Your task to perform on an android device: Show the shopping cart on newegg.com. Search for "asus rog" on newegg.com, select the first entry, and add it to the cart. Image 0: 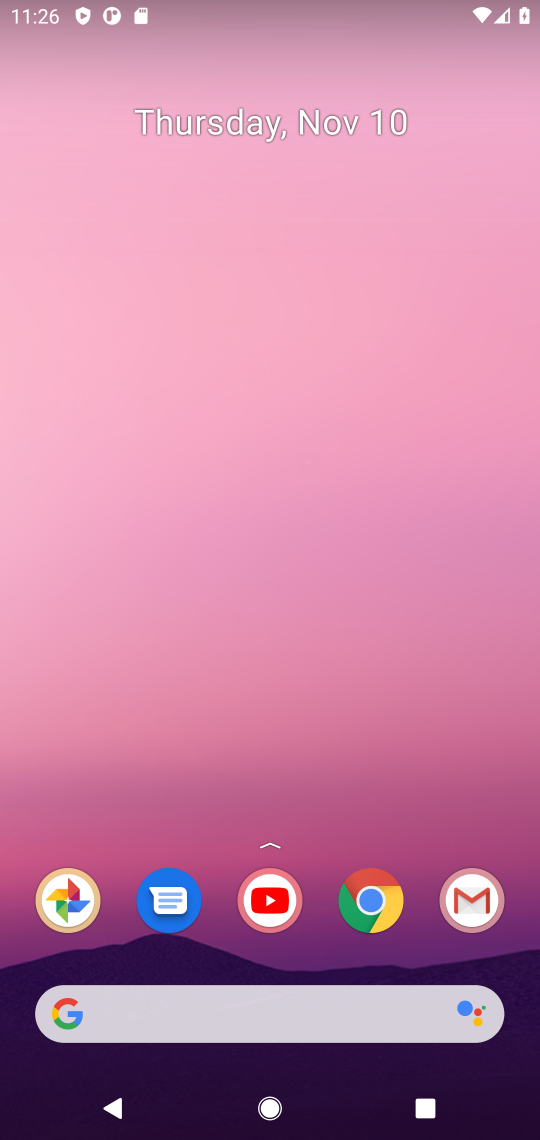
Step 0: click (365, 901)
Your task to perform on an android device: Show the shopping cart on newegg.com. Search for "asus rog" on newegg.com, select the first entry, and add it to the cart. Image 1: 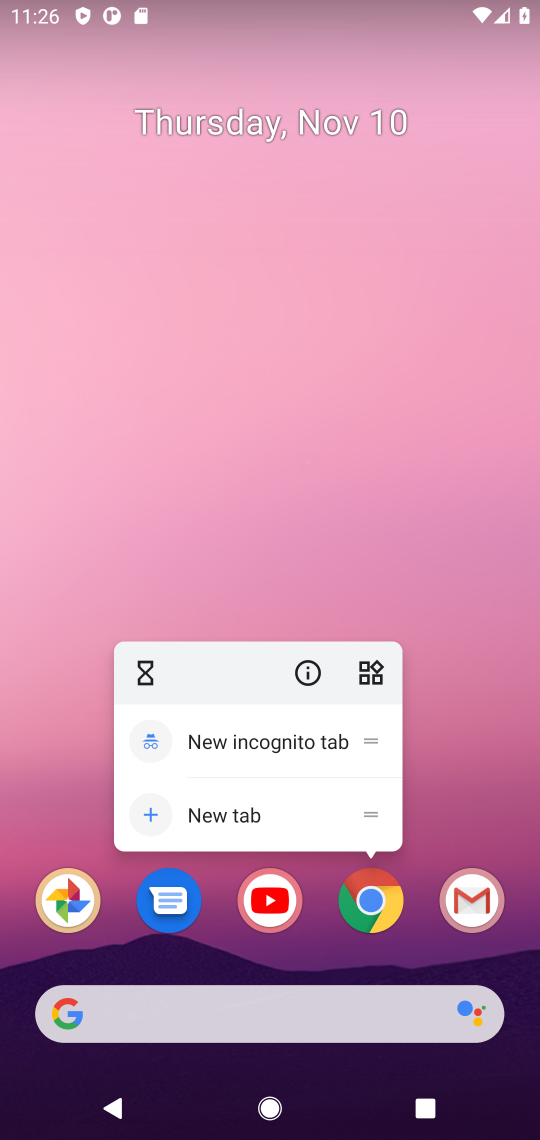
Step 1: click (383, 901)
Your task to perform on an android device: Show the shopping cart on newegg.com. Search for "asus rog" on newegg.com, select the first entry, and add it to the cart. Image 2: 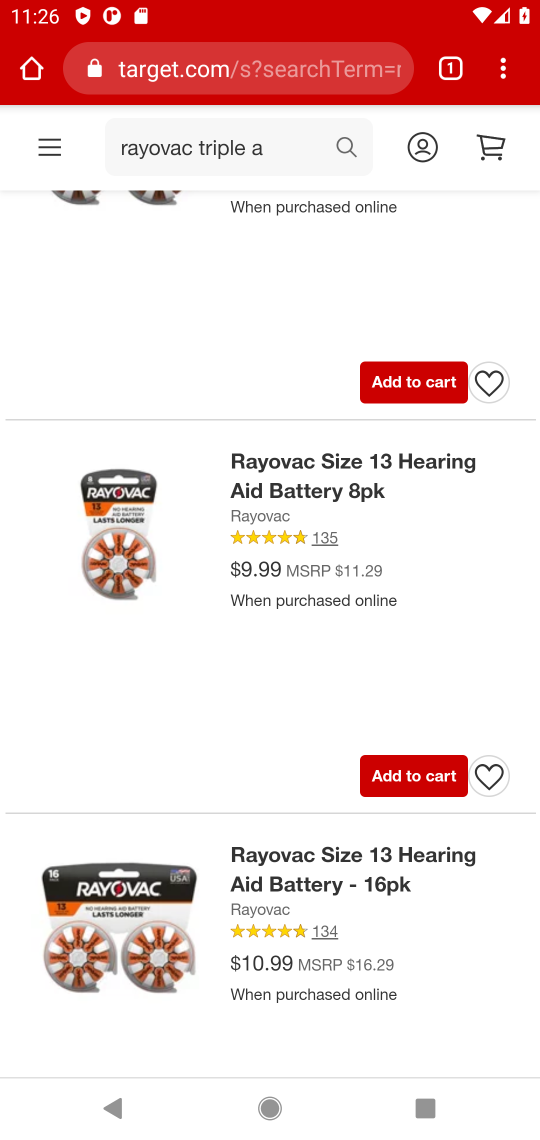
Step 2: click (261, 70)
Your task to perform on an android device: Show the shopping cart on newegg.com. Search for "asus rog" on newegg.com, select the first entry, and add it to the cart. Image 3: 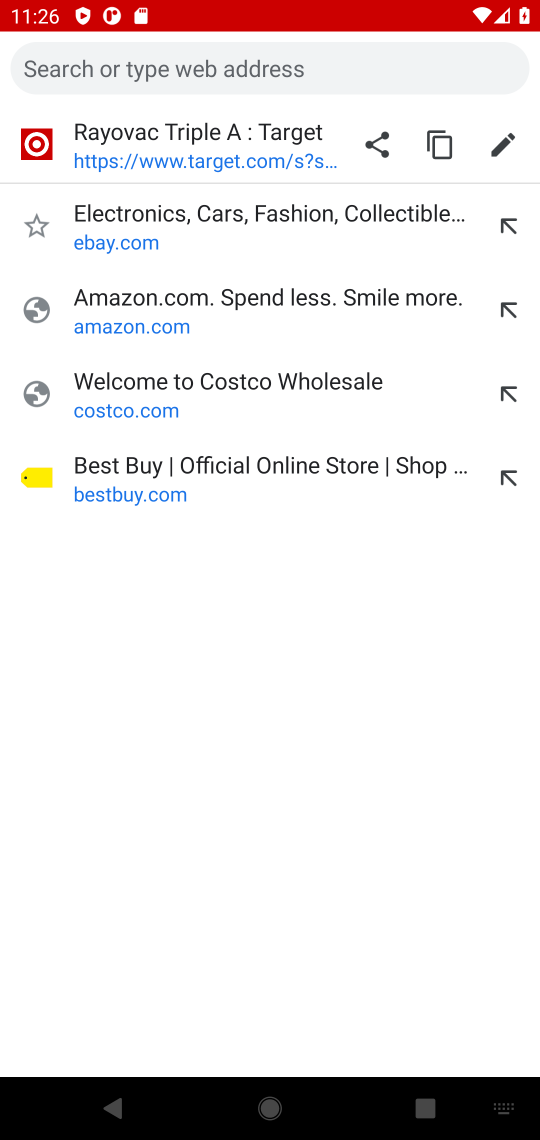
Step 3: type "newegg.com"
Your task to perform on an android device: Show the shopping cart on newegg.com. Search for "asus rog" on newegg.com, select the first entry, and add it to the cart. Image 4: 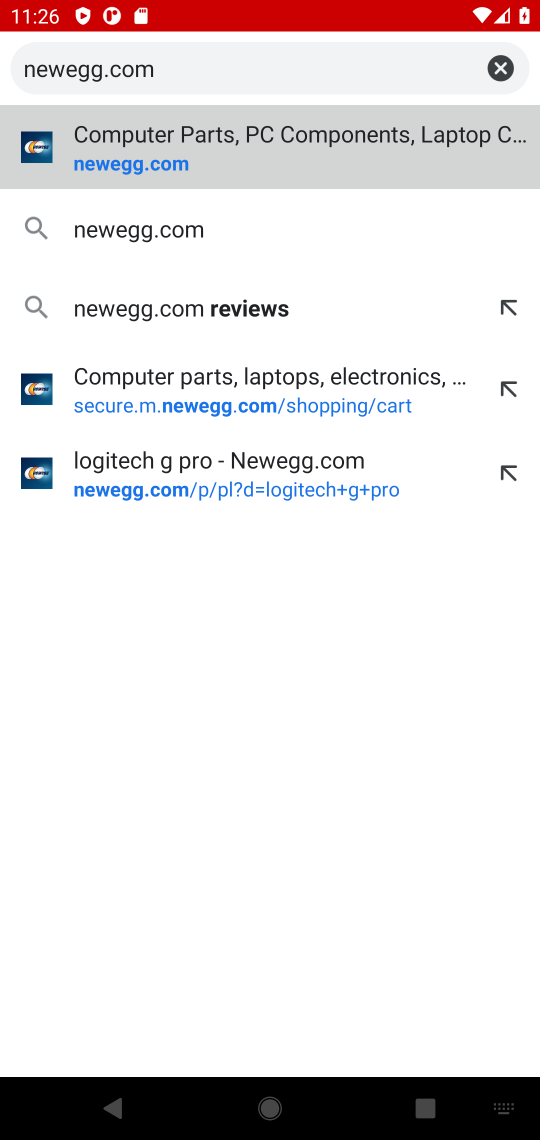
Step 4: press enter
Your task to perform on an android device: Show the shopping cart on newegg.com. Search for "asus rog" on newegg.com, select the first entry, and add it to the cart. Image 5: 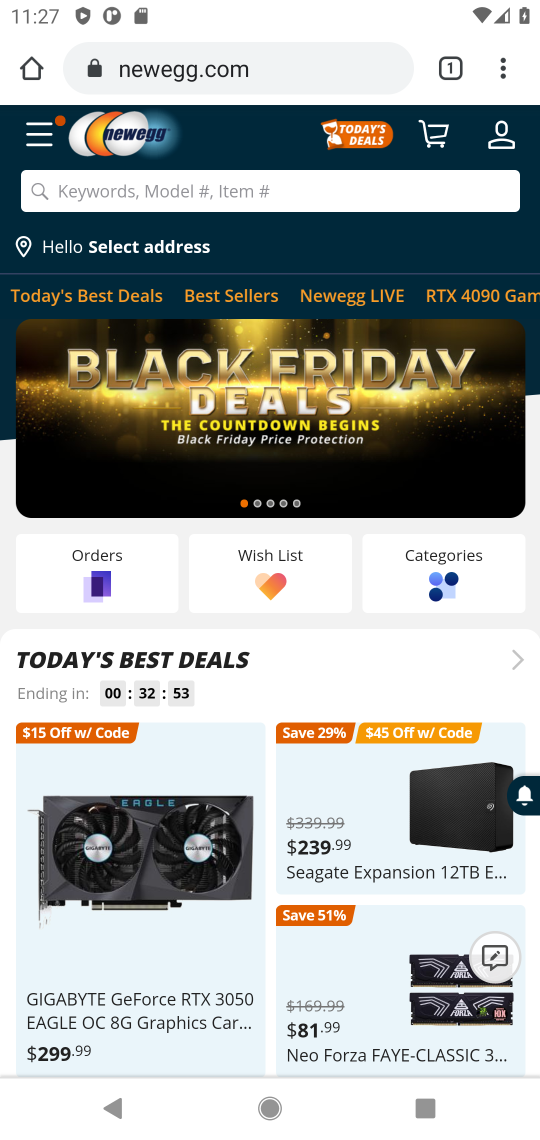
Step 5: click (239, 181)
Your task to perform on an android device: Show the shopping cart on newegg.com. Search for "asus rog" on newegg.com, select the first entry, and add it to the cart. Image 6: 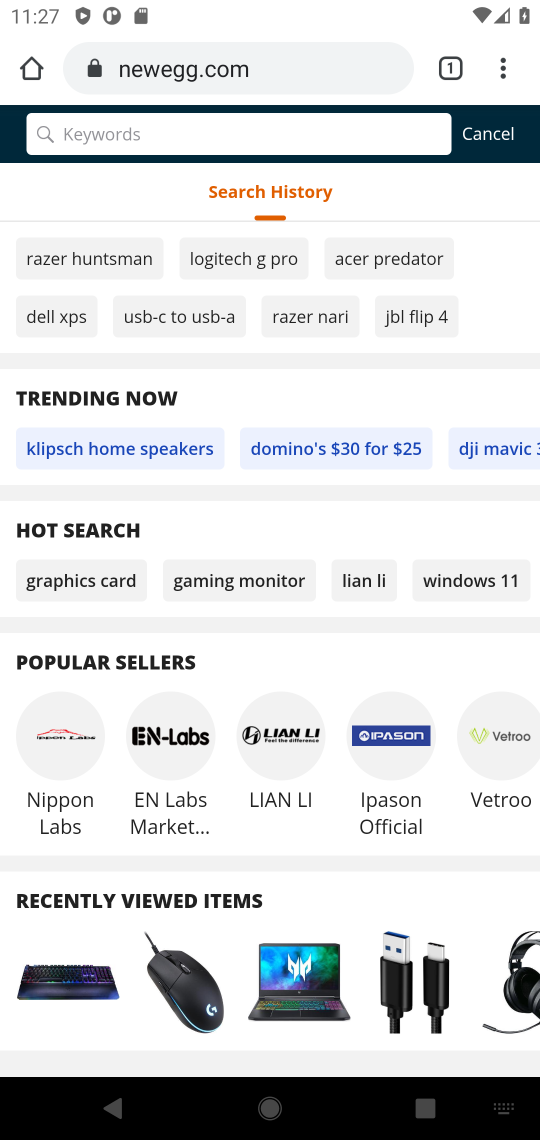
Step 6: type "asus rog"
Your task to perform on an android device: Show the shopping cart on newegg.com. Search for "asus rog" on newegg.com, select the first entry, and add it to the cart. Image 7: 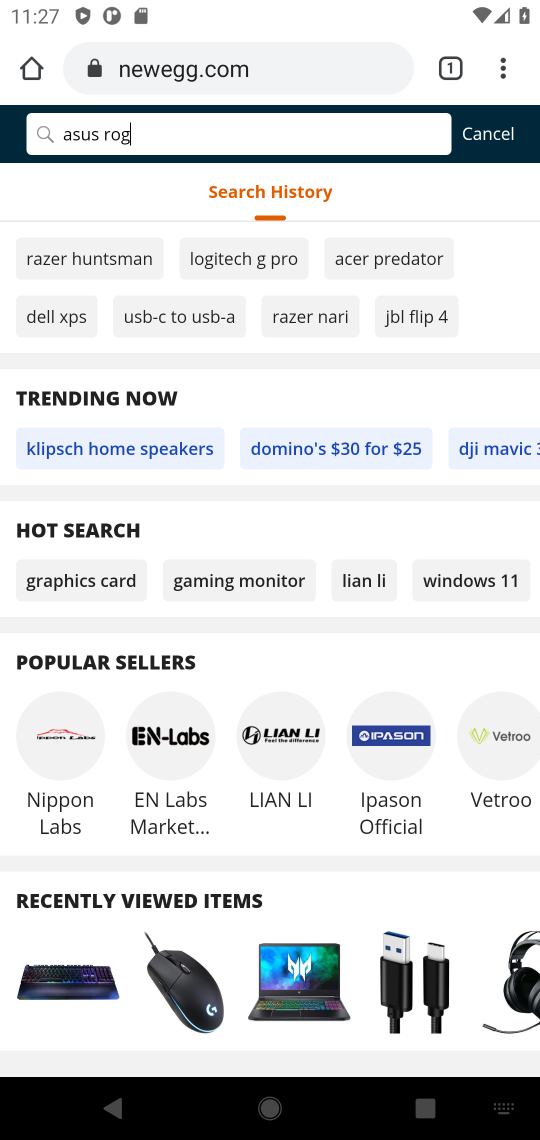
Step 7: press enter
Your task to perform on an android device: Show the shopping cart on newegg.com. Search for "asus rog" on newegg.com, select the first entry, and add it to the cart. Image 8: 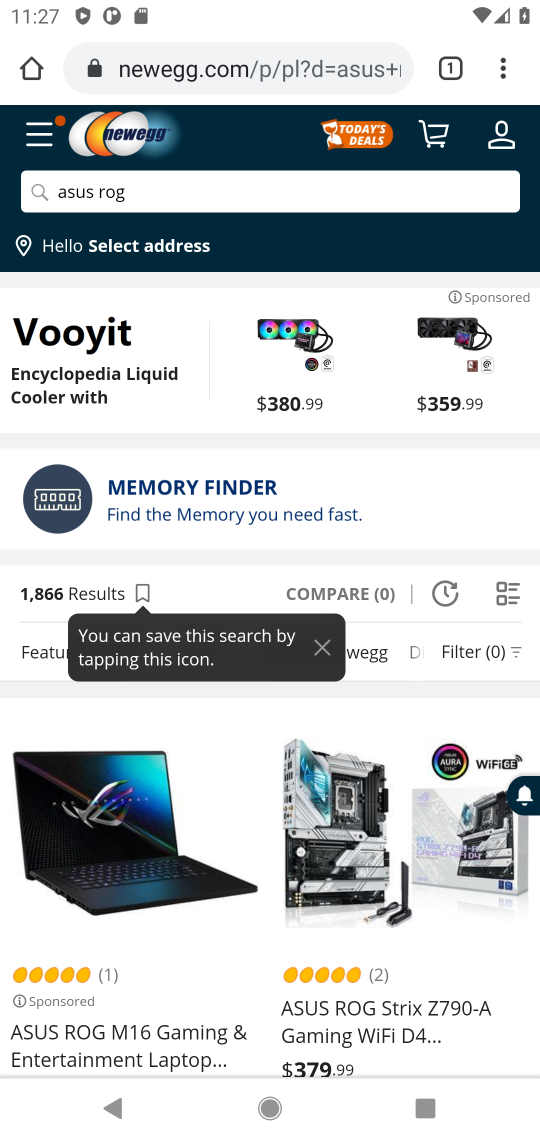
Step 8: drag from (257, 906) to (265, 509)
Your task to perform on an android device: Show the shopping cart on newegg.com. Search for "asus rog" on newegg.com, select the first entry, and add it to the cart. Image 9: 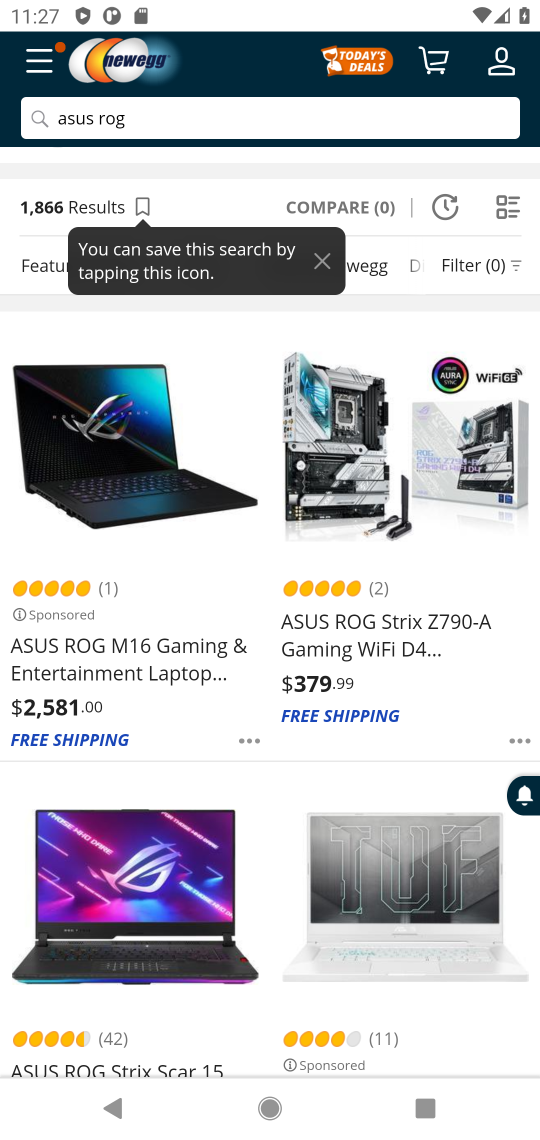
Step 9: click (124, 659)
Your task to perform on an android device: Show the shopping cart on newegg.com. Search for "asus rog" on newegg.com, select the first entry, and add it to the cart. Image 10: 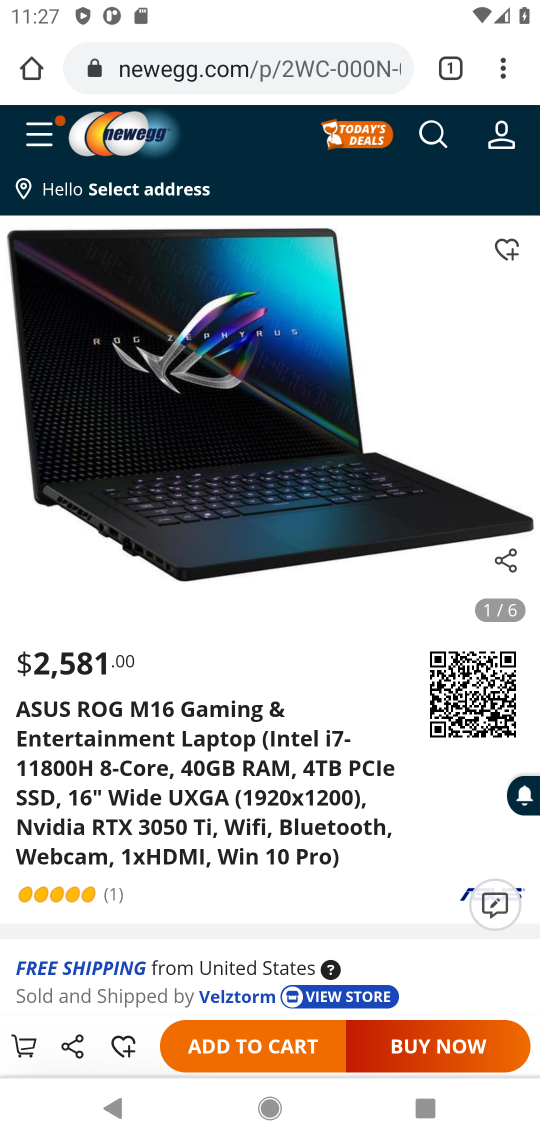
Step 10: click (237, 1044)
Your task to perform on an android device: Show the shopping cart on newegg.com. Search for "asus rog" on newegg.com, select the first entry, and add it to the cart. Image 11: 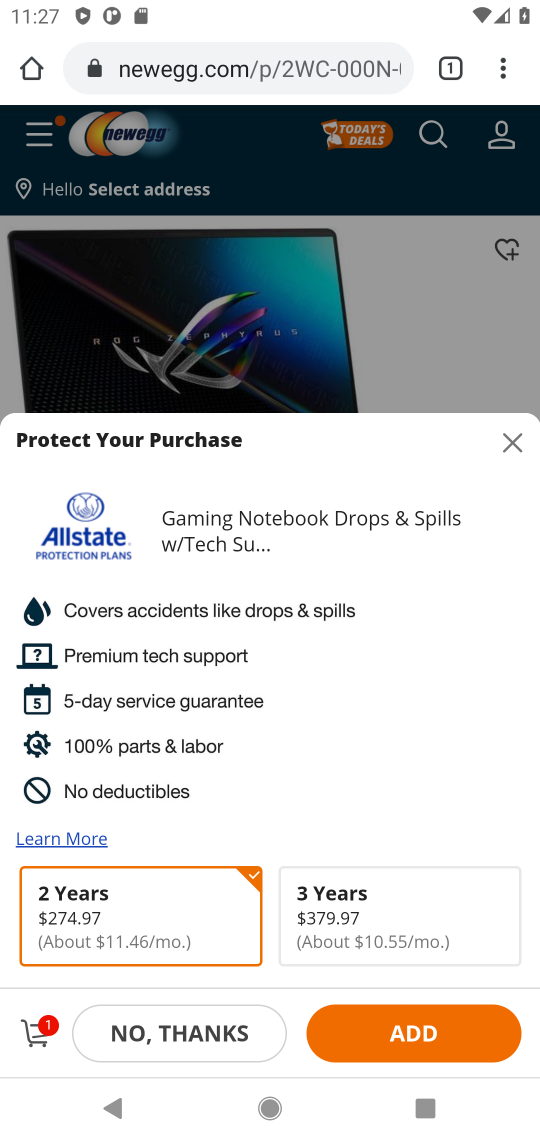
Step 11: click (41, 1031)
Your task to perform on an android device: Show the shopping cart on newegg.com. Search for "asus rog" on newegg.com, select the first entry, and add it to the cart. Image 12: 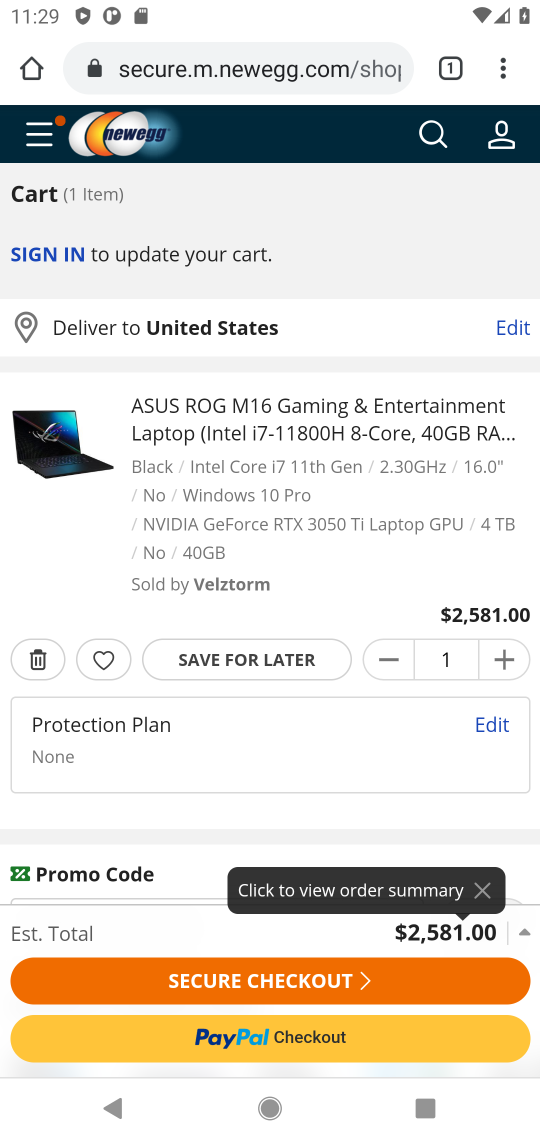
Step 12: task complete